Your task to perform on an android device: Open Youtube and go to "Your channel" Image 0: 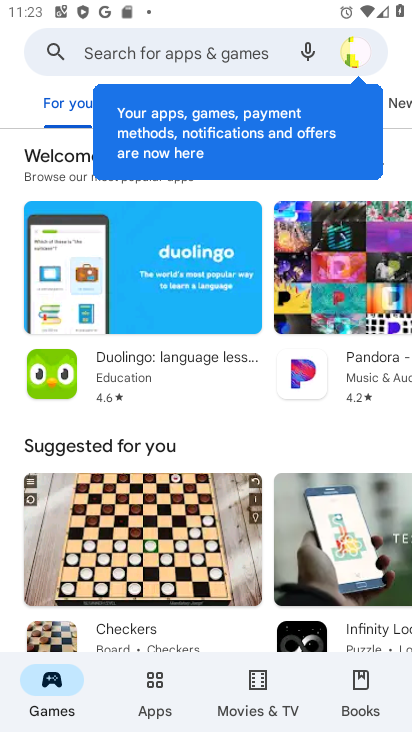
Step 0: press home button
Your task to perform on an android device: Open Youtube and go to "Your channel" Image 1: 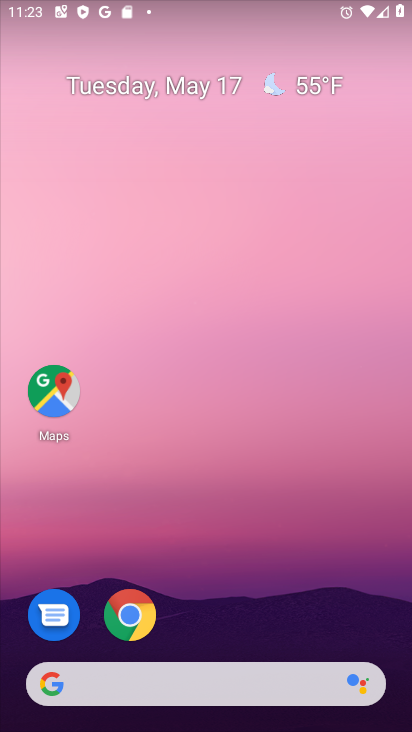
Step 1: drag from (242, 559) to (284, 100)
Your task to perform on an android device: Open Youtube and go to "Your channel" Image 2: 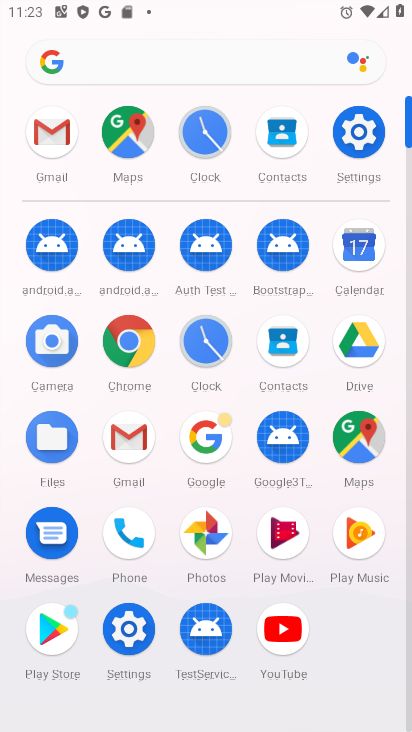
Step 2: click (290, 648)
Your task to perform on an android device: Open Youtube and go to "Your channel" Image 3: 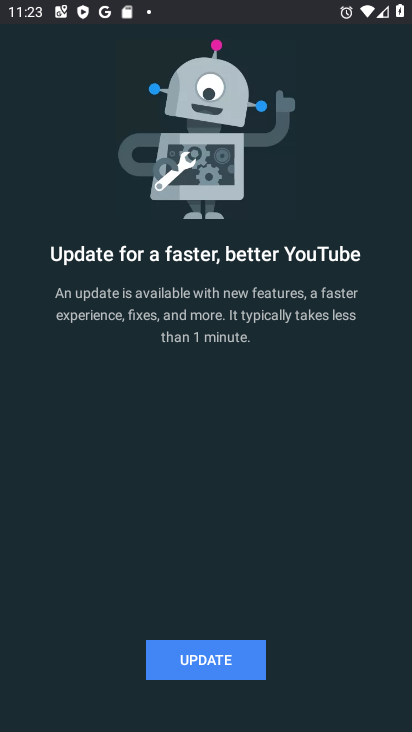
Step 3: click (219, 657)
Your task to perform on an android device: Open Youtube and go to "Your channel" Image 4: 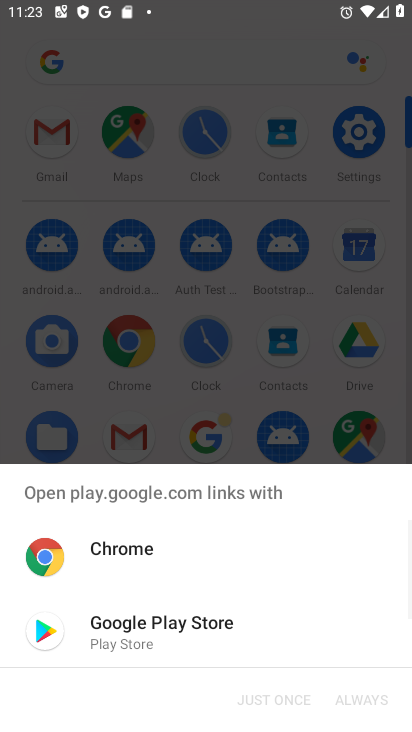
Step 4: click (147, 634)
Your task to perform on an android device: Open Youtube and go to "Your channel" Image 5: 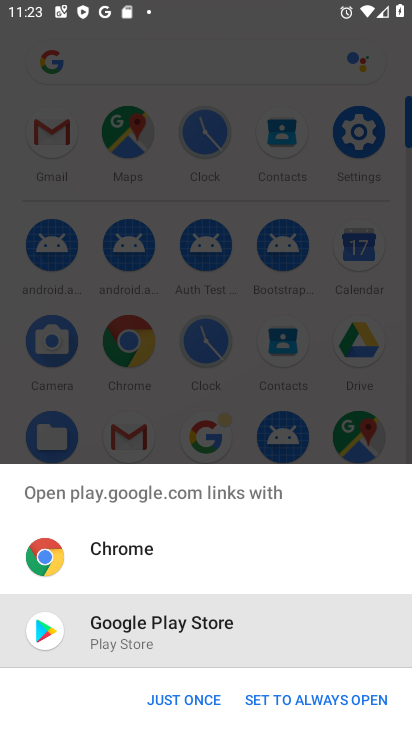
Step 5: click (194, 700)
Your task to perform on an android device: Open Youtube and go to "Your channel" Image 6: 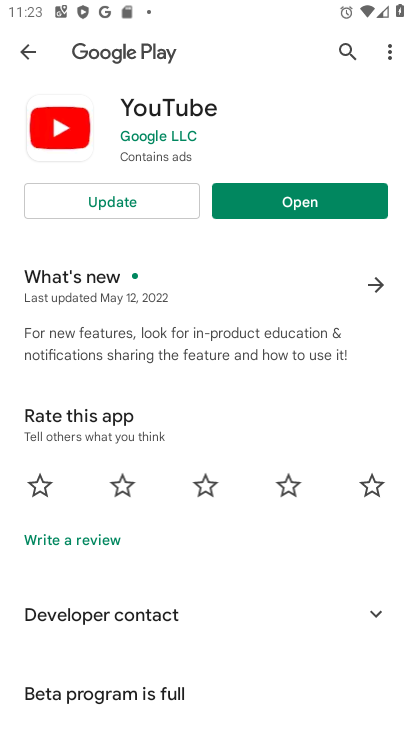
Step 6: click (96, 193)
Your task to perform on an android device: Open Youtube and go to "Your channel" Image 7: 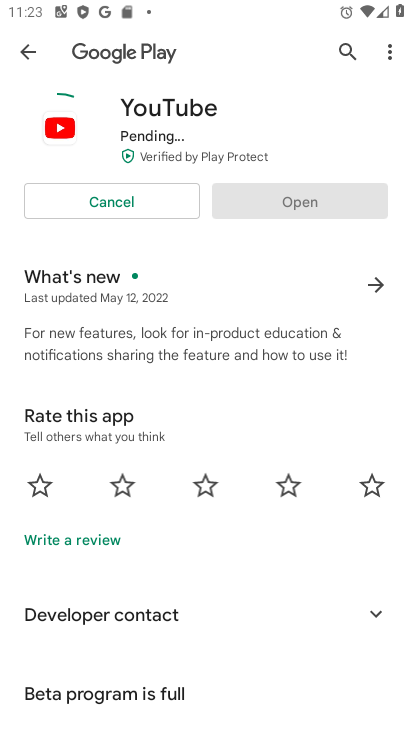
Step 7: task complete